Your task to perform on an android device: Is it going to rain this weekend? Image 0: 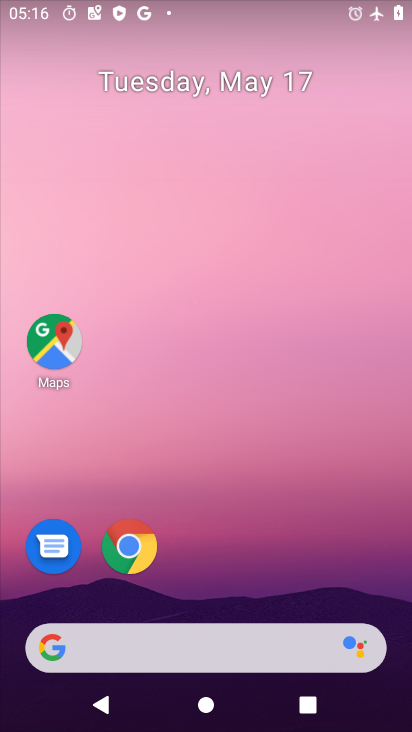
Step 0: drag from (400, 651) to (376, 279)
Your task to perform on an android device: Is it going to rain this weekend? Image 1: 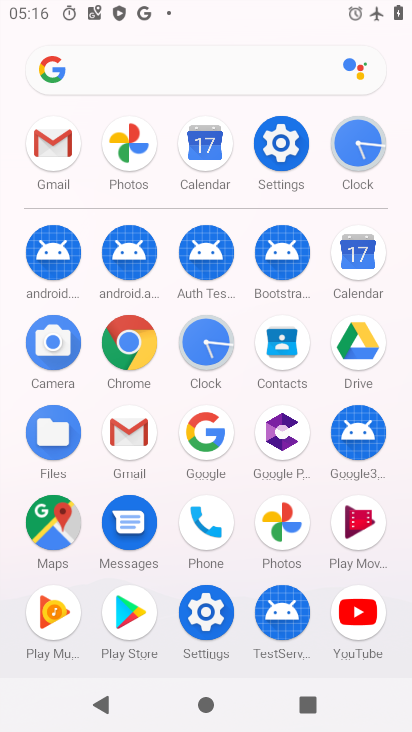
Step 1: click (210, 444)
Your task to perform on an android device: Is it going to rain this weekend? Image 2: 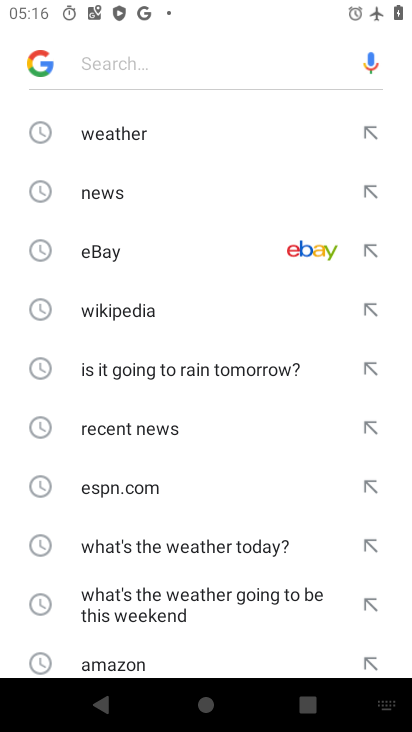
Step 2: click (113, 142)
Your task to perform on an android device: Is it going to rain this weekend? Image 3: 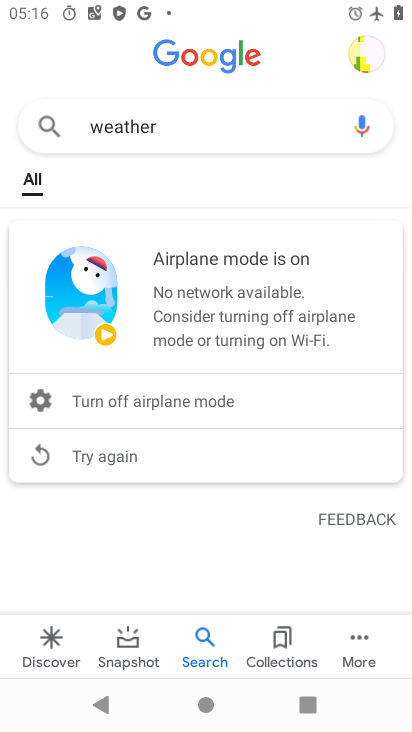
Step 3: task complete